Your task to perform on an android device: check android version Image 0: 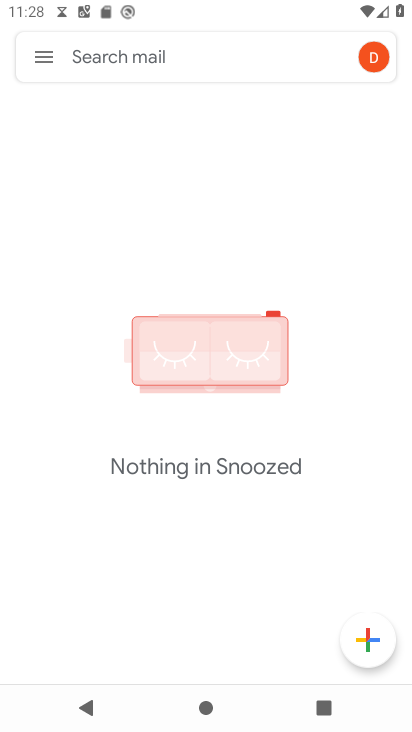
Step 0: press home button
Your task to perform on an android device: check android version Image 1: 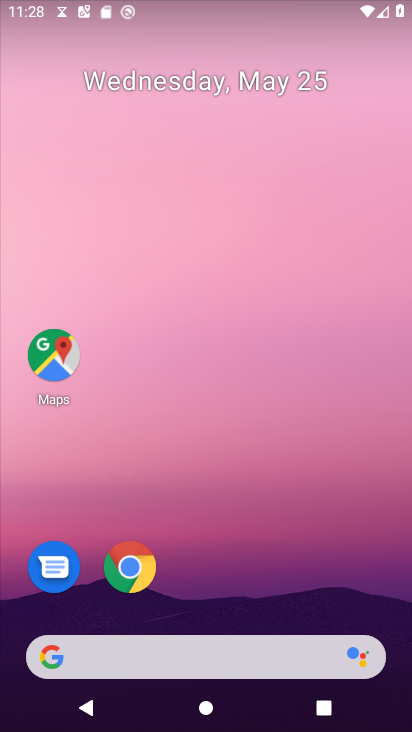
Step 1: drag from (288, 530) to (227, 231)
Your task to perform on an android device: check android version Image 2: 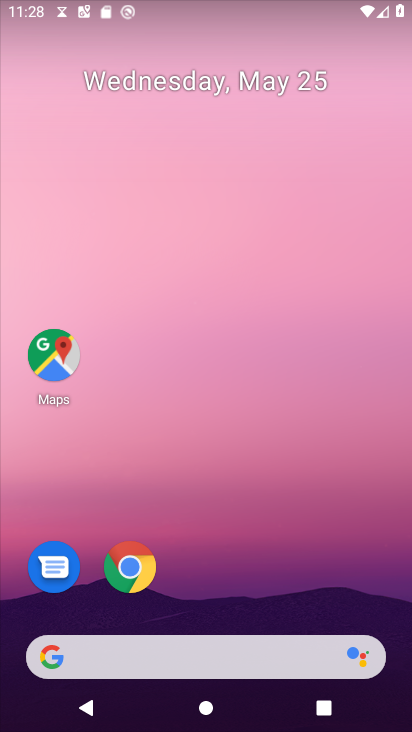
Step 2: drag from (254, 570) to (242, 94)
Your task to perform on an android device: check android version Image 3: 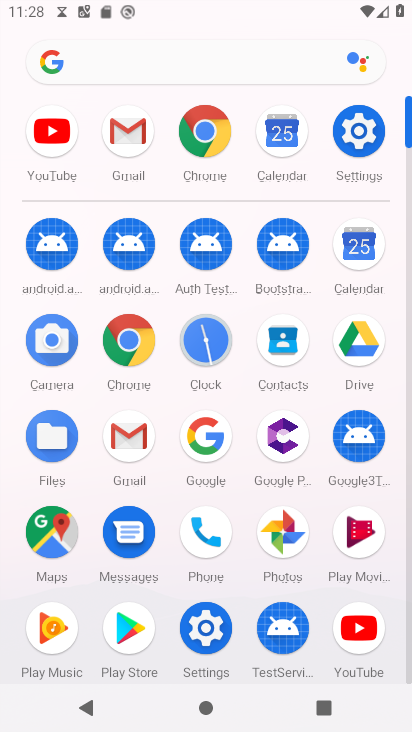
Step 3: click (354, 143)
Your task to perform on an android device: check android version Image 4: 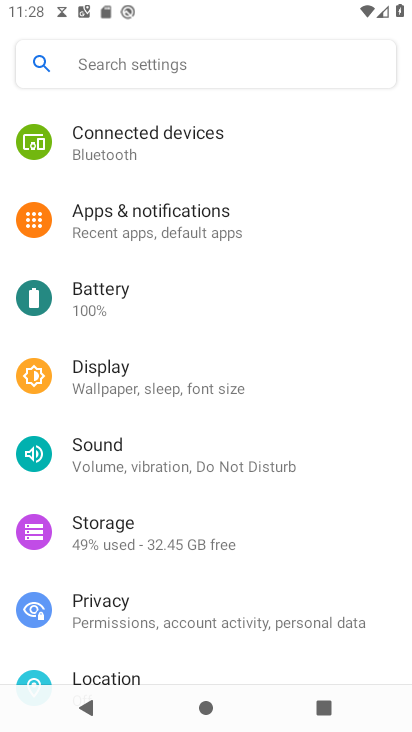
Step 4: drag from (203, 605) to (206, 175)
Your task to perform on an android device: check android version Image 5: 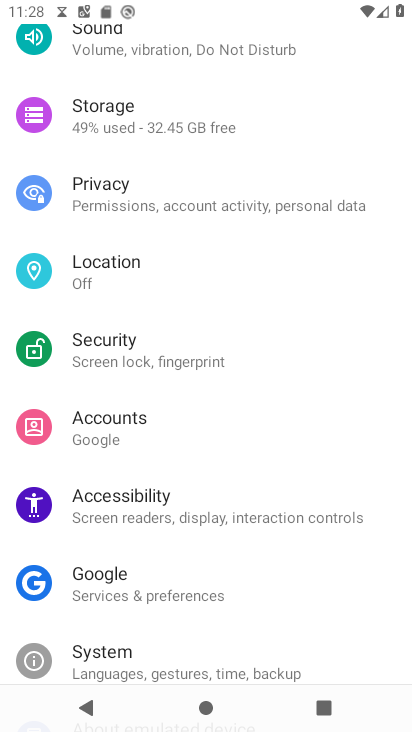
Step 5: drag from (168, 586) to (163, 183)
Your task to perform on an android device: check android version Image 6: 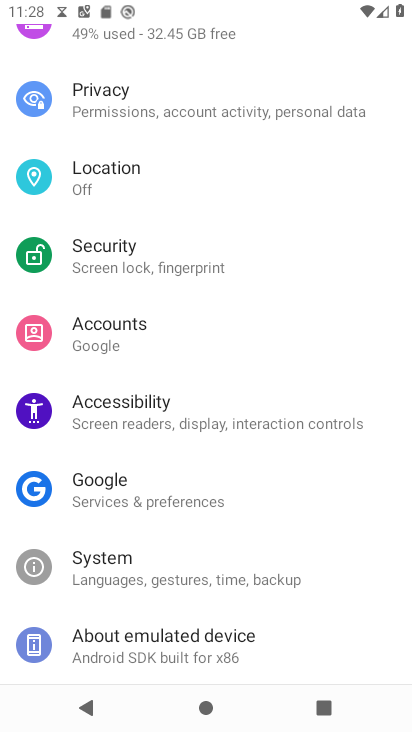
Step 6: drag from (194, 645) to (188, 213)
Your task to perform on an android device: check android version Image 7: 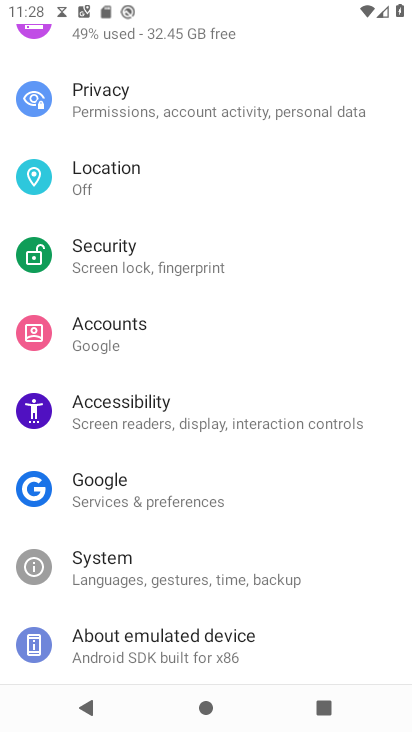
Step 7: click (164, 638)
Your task to perform on an android device: check android version Image 8: 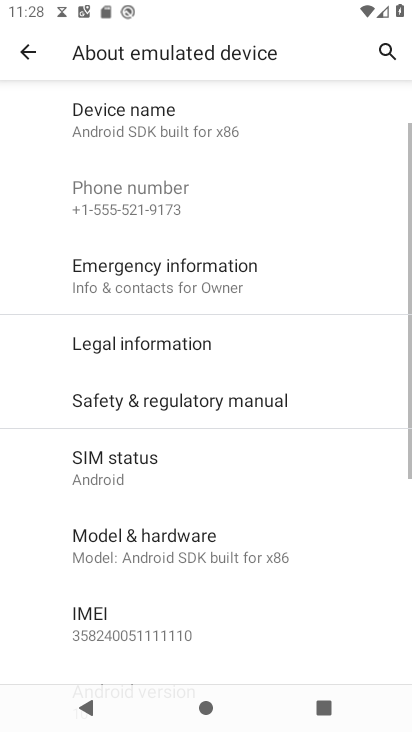
Step 8: task complete